Your task to perform on an android device: Open the map Image 0: 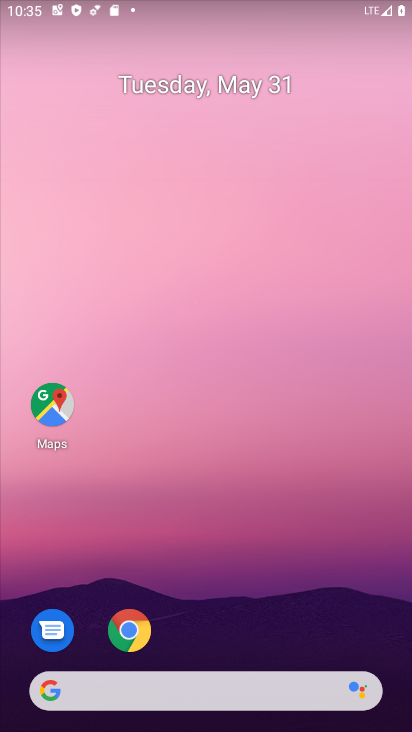
Step 0: drag from (213, 727) to (285, 253)
Your task to perform on an android device: Open the map Image 1: 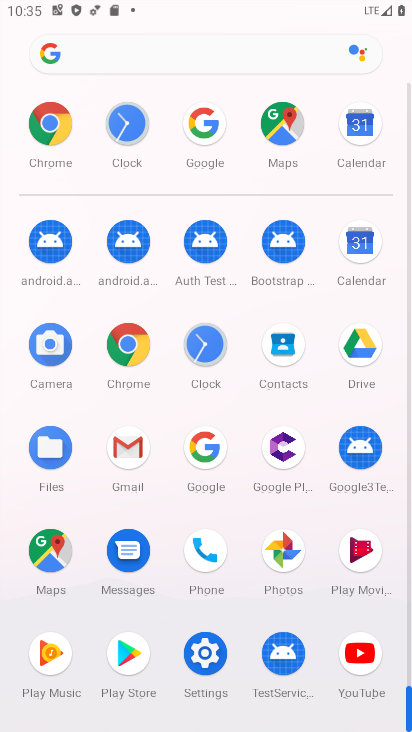
Step 1: click (50, 569)
Your task to perform on an android device: Open the map Image 2: 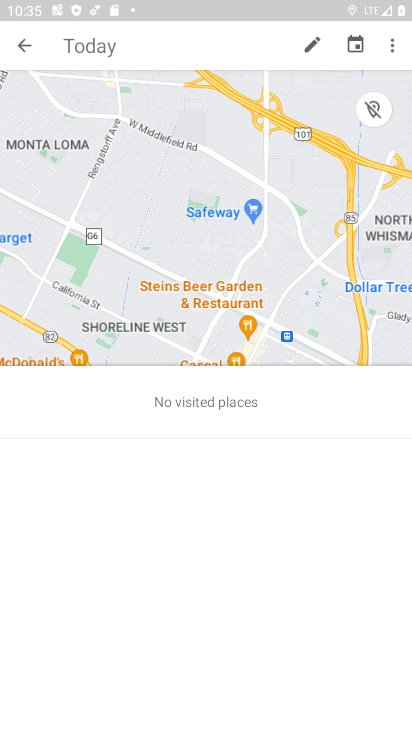
Step 2: task complete